Your task to perform on an android device: When is my next meeting? Image 0: 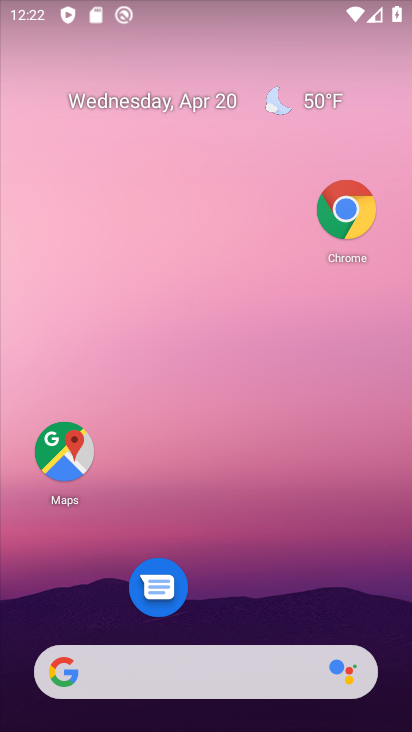
Step 0: click (316, 50)
Your task to perform on an android device: When is my next meeting? Image 1: 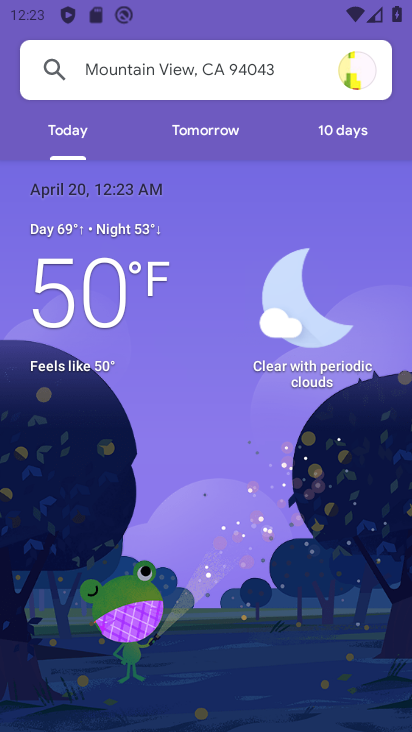
Step 1: press home button
Your task to perform on an android device: When is my next meeting? Image 2: 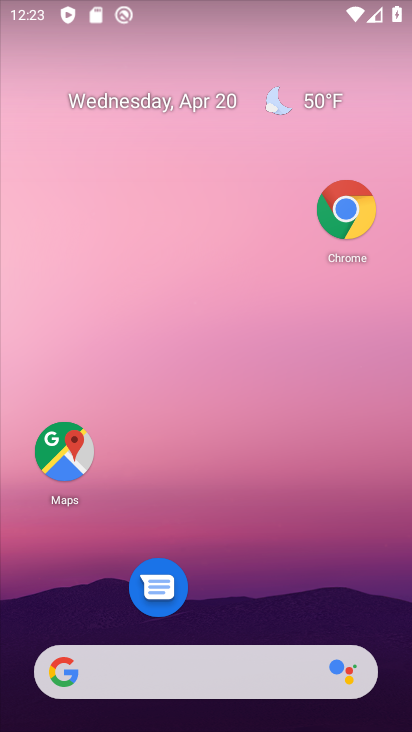
Step 2: drag from (238, 591) to (303, 28)
Your task to perform on an android device: When is my next meeting? Image 3: 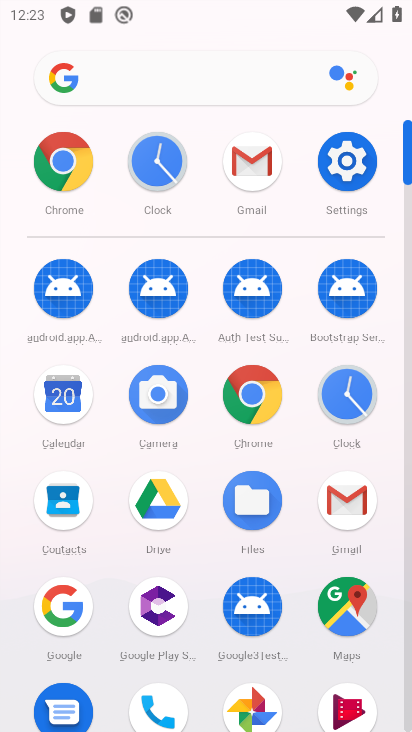
Step 3: click (64, 411)
Your task to perform on an android device: When is my next meeting? Image 4: 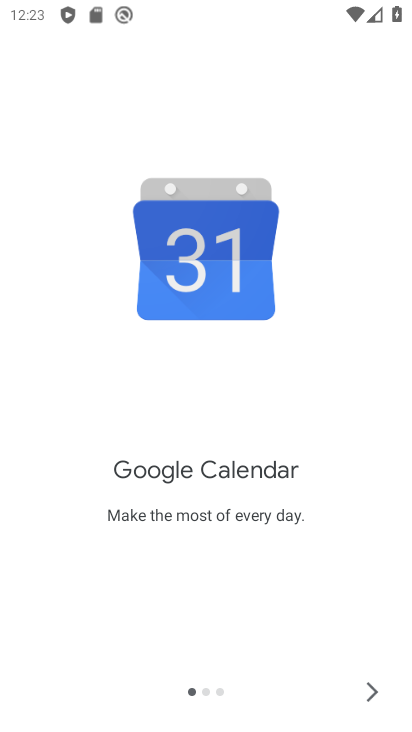
Step 4: click (380, 683)
Your task to perform on an android device: When is my next meeting? Image 5: 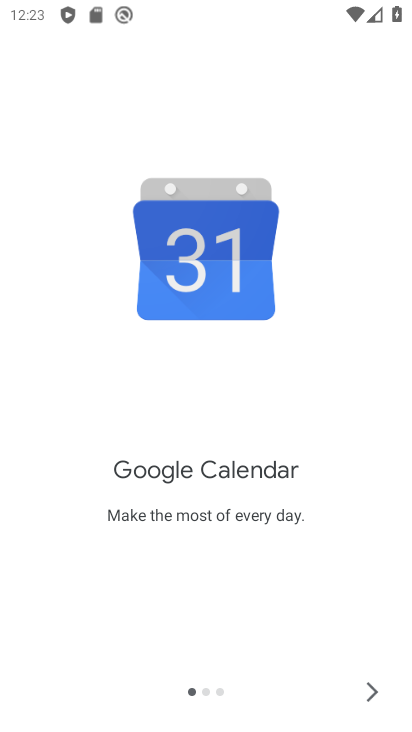
Step 5: click (380, 683)
Your task to perform on an android device: When is my next meeting? Image 6: 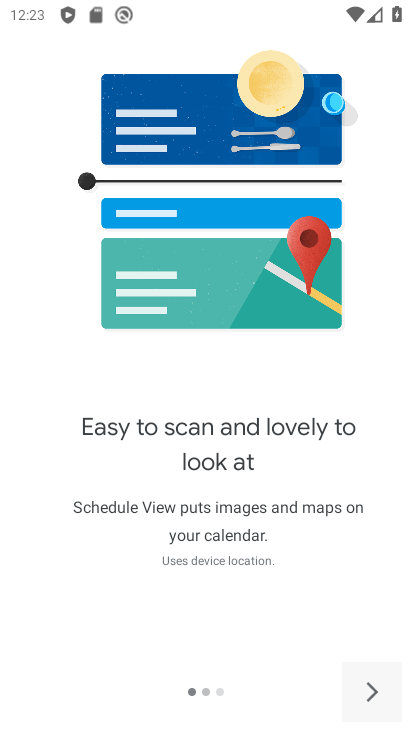
Step 6: click (380, 683)
Your task to perform on an android device: When is my next meeting? Image 7: 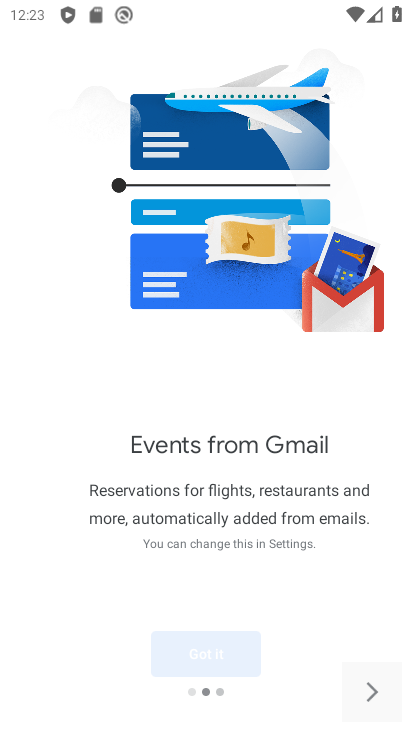
Step 7: click (379, 683)
Your task to perform on an android device: When is my next meeting? Image 8: 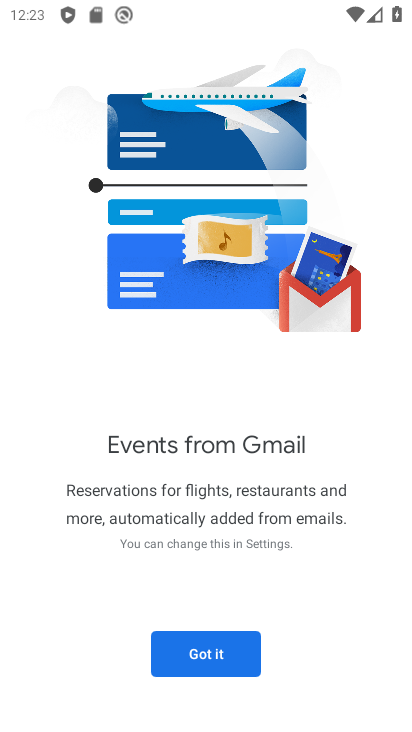
Step 8: click (378, 683)
Your task to perform on an android device: When is my next meeting? Image 9: 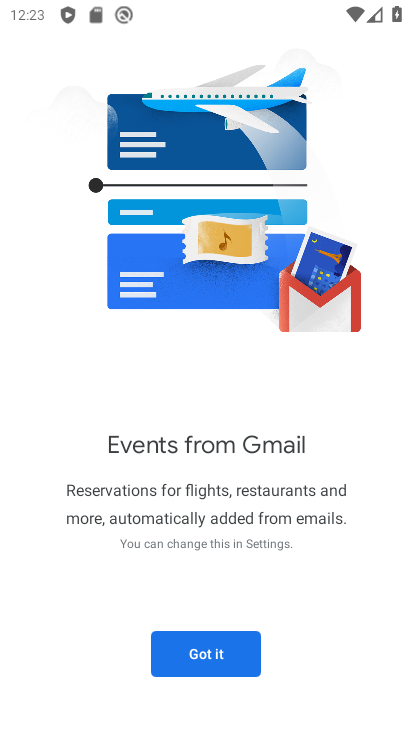
Step 9: click (216, 651)
Your task to perform on an android device: When is my next meeting? Image 10: 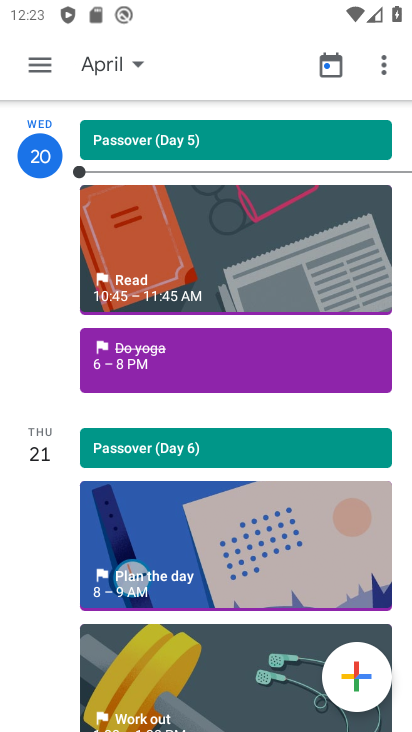
Step 10: click (49, 64)
Your task to perform on an android device: When is my next meeting? Image 11: 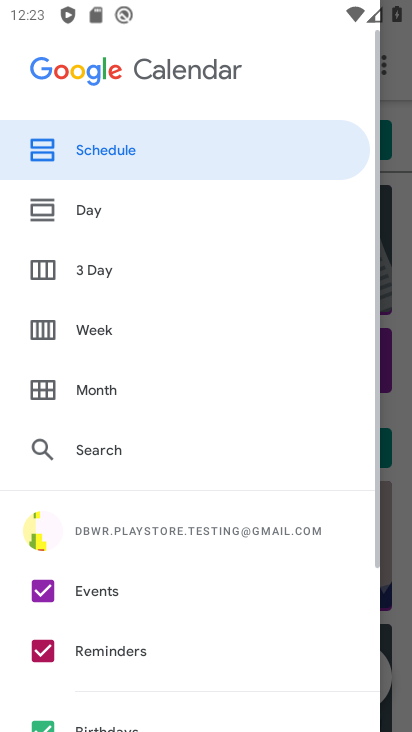
Step 11: drag from (138, 598) to (157, 562)
Your task to perform on an android device: When is my next meeting? Image 12: 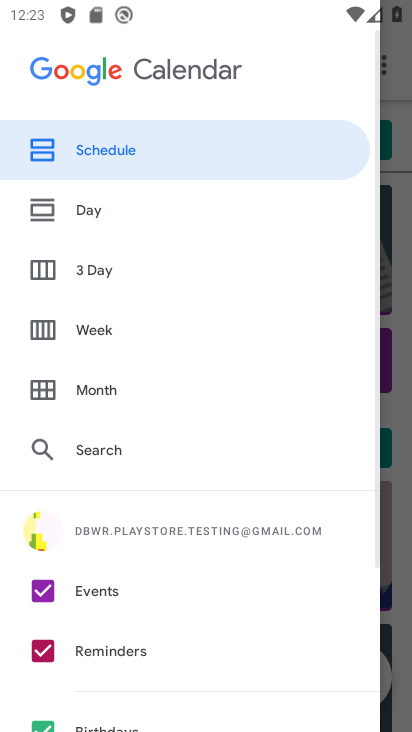
Step 12: click (99, 455)
Your task to perform on an android device: When is my next meeting? Image 13: 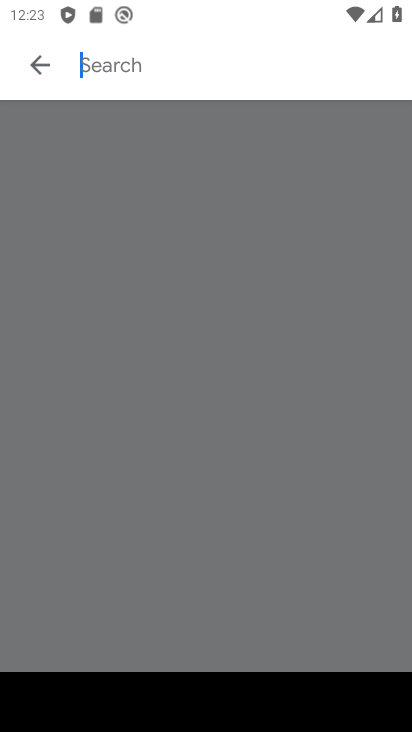
Step 13: type "meet"
Your task to perform on an android device: When is my next meeting? Image 14: 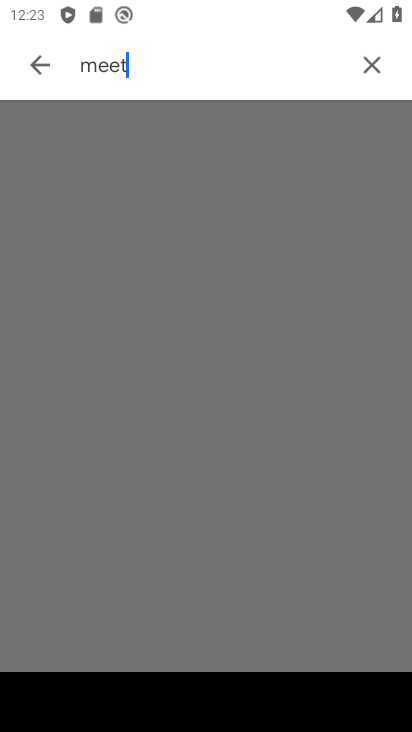
Step 14: task complete